Your task to perform on an android device: check battery use Image 0: 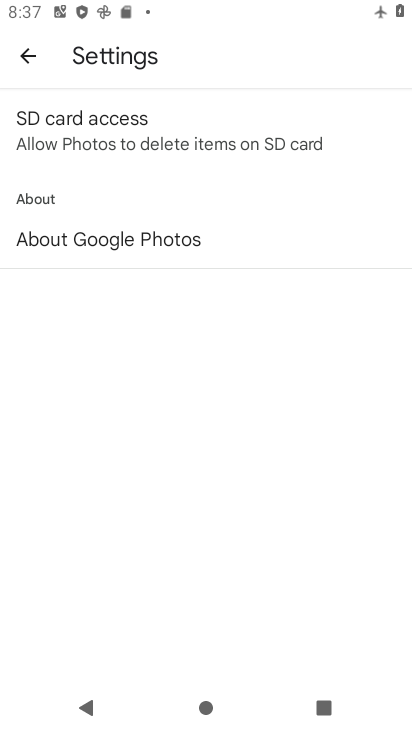
Step 0: press home button
Your task to perform on an android device: check battery use Image 1: 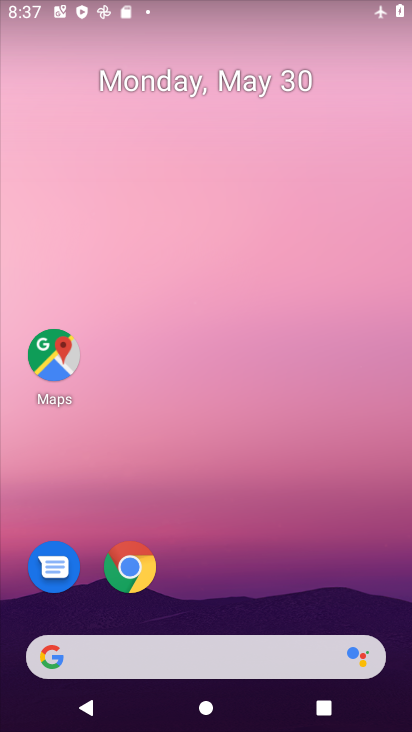
Step 1: drag from (289, 573) to (253, 66)
Your task to perform on an android device: check battery use Image 2: 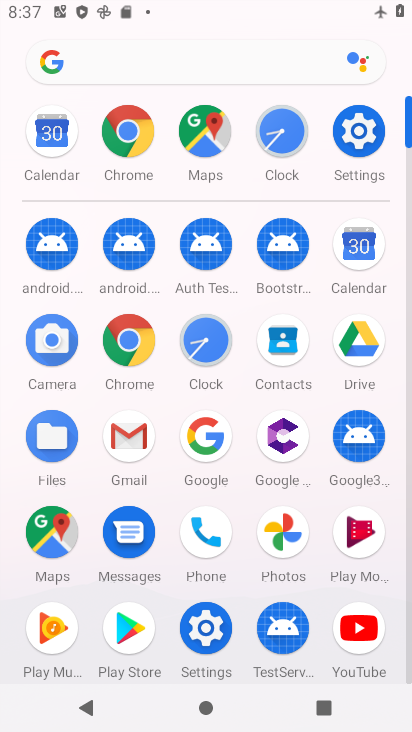
Step 2: click (353, 146)
Your task to perform on an android device: check battery use Image 3: 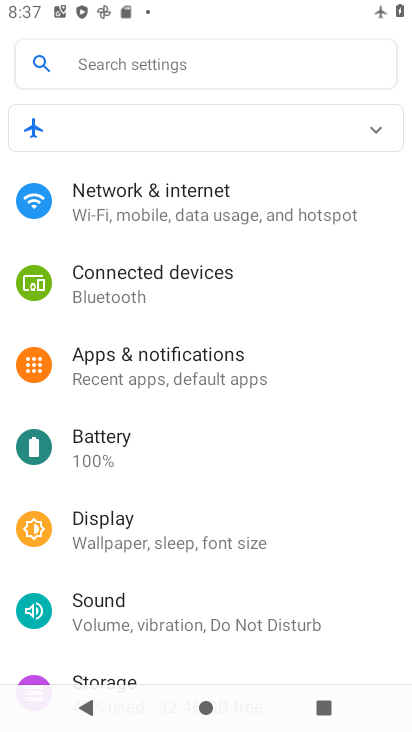
Step 3: click (189, 465)
Your task to perform on an android device: check battery use Image 4: 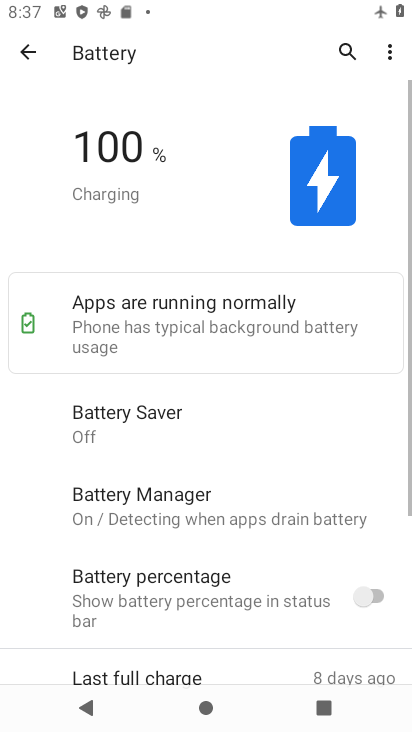
Step 4: task complete